Your task to perform on an android device: move an email to a new category in the gmail app Image 0: 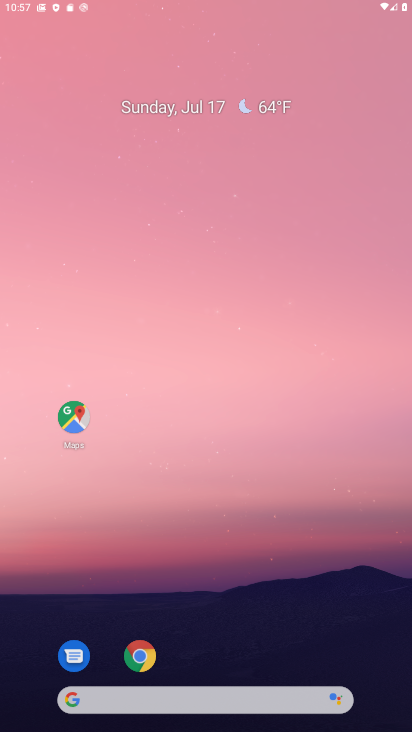
Step 0: click (226, 175)
Your task to perform on an android device: move an email to a new category in the gmail app Image 1: 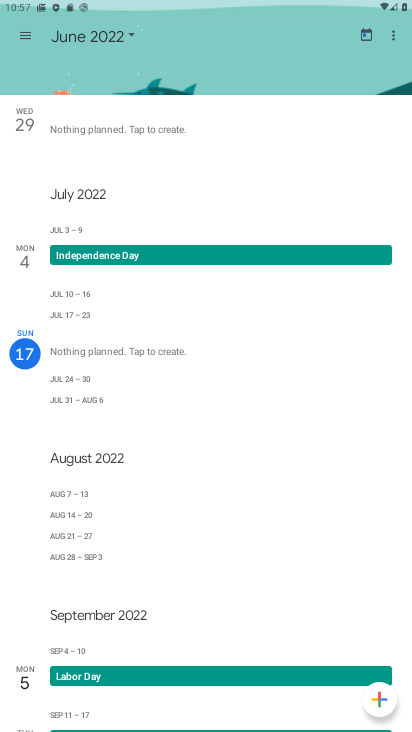
Step 1: press home button
Your task to perform on an android device: move an email to a new category in the gmail app Image 2: 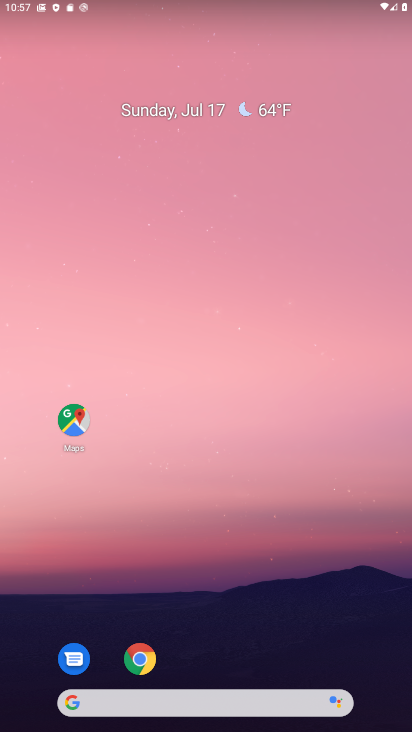
Step 2: drag from (250, 449) to (249, 111)
Your task to perform on an android device: move an email to a new category in the gmail app Image 3: 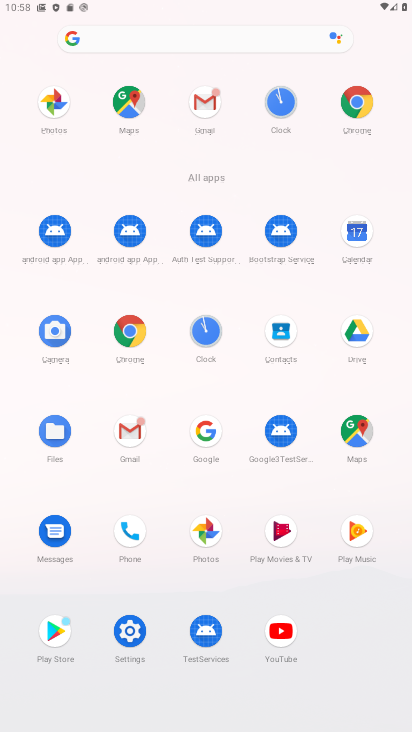
Step 3: click (128, 626)
Your task to perform on an android device: move an email to a new category in the gmail app Image 4: 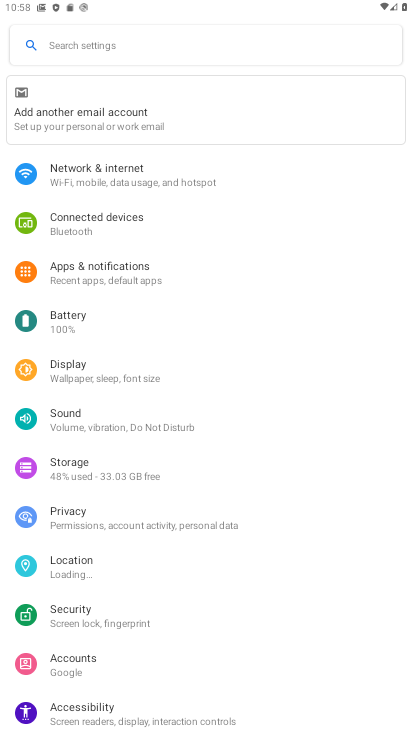
Step 4: click (76, 372)
Your task to perform on an android device: move an email to a new category in the gmail app Image 5: 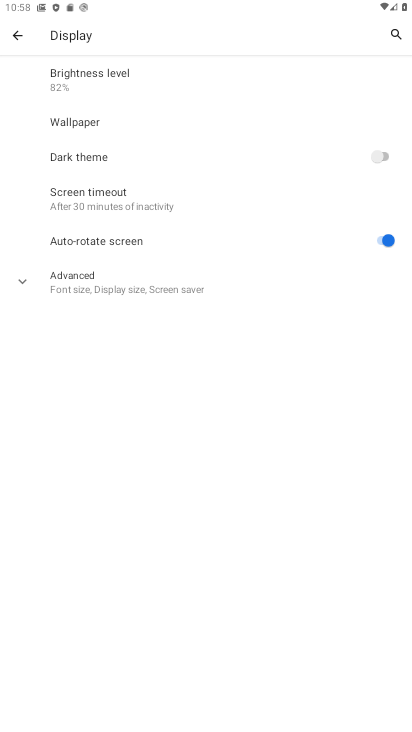
Step 5: task complete